Your task to perform on an android device: open the mobile data screen to see how much data has been used Image 0: 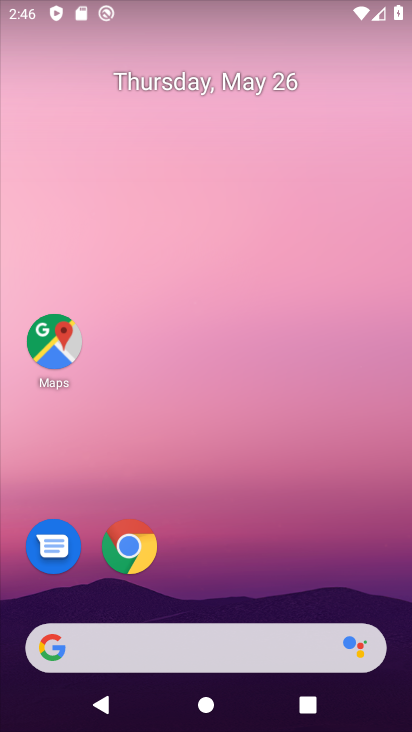
Step 0: drag from (396, 699) to (350, 257)
Your task to perform on an android device: open the mobile data screen to see how much data has been used Image 1: 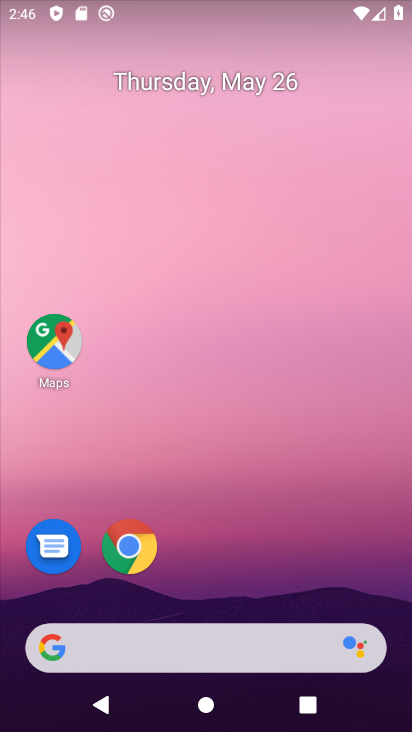
Step 1: drag from (397, 691) to (326, 207)
Your task to perform on an android device: open the mobile data screen to see how much data has been used Image 2: 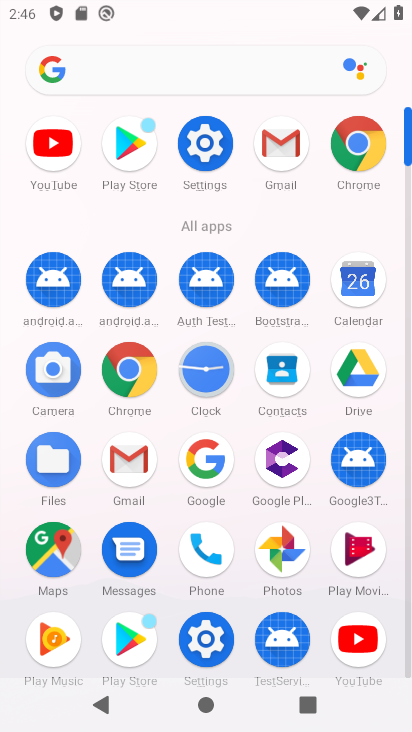
Step 2: click (205, 149)
Your task to perform on an android device: open the mobile data screen to see how much data has been used Image 3: 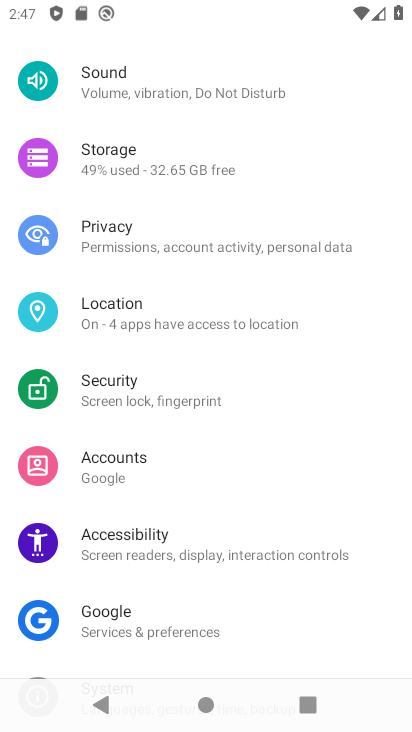
Step 3: drag from (307, 115) to (355, 567)
Your task to perform on an android device: open the mobile data screen to see how much data has been used Image 4: 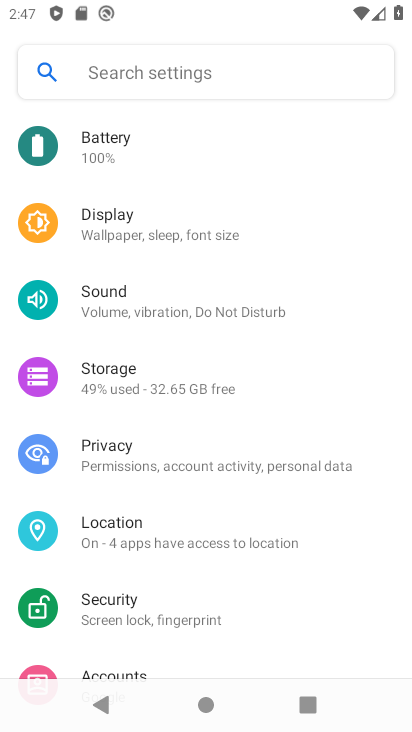
Step 4: drag from (335, 288) to (351, 528)
Your task to perform on an android device: open the mobile data screen to see how much data has been used Image 5: 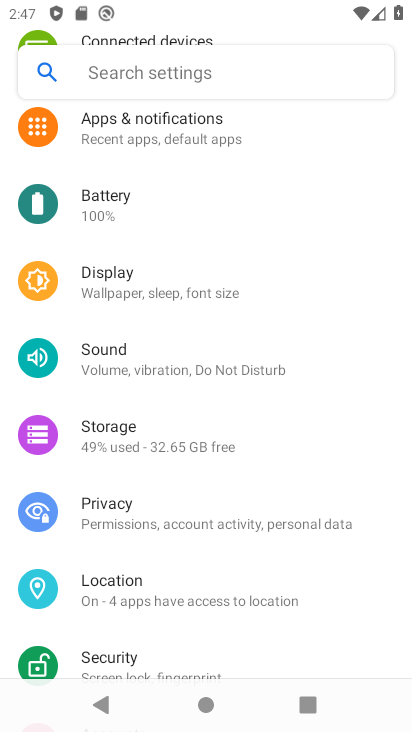
Step 5: drag from (324, 211) to (365, 591)
Your task to perform on an android device: open the mobile data screen to see how much data has been used Image 6: 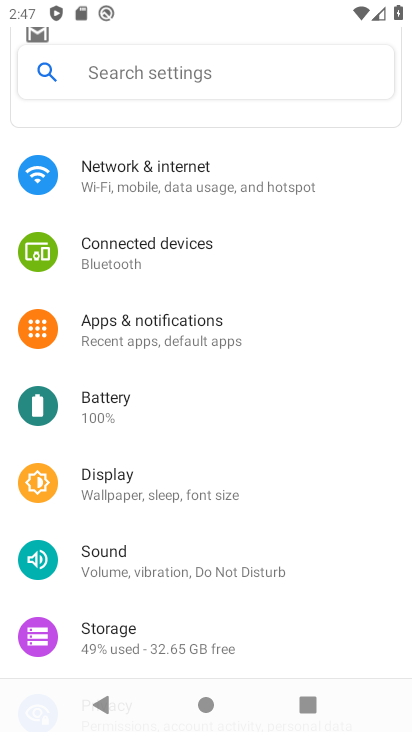
Step 6: drag from (365, 227) to (402, 600)
Your task to perform on an android device: open the mobile data screen to see how much data has been used Image 7: 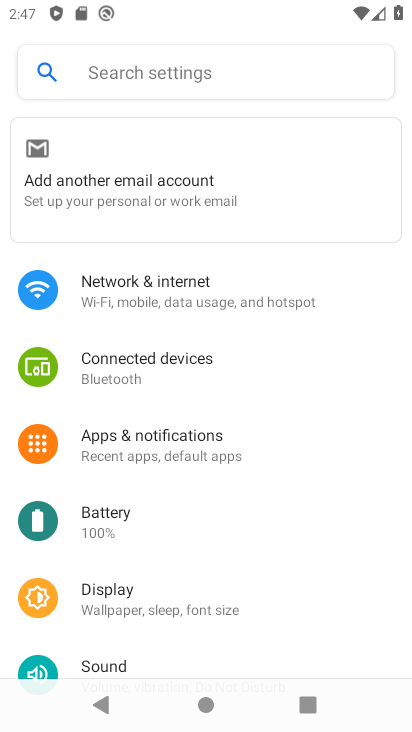
Step 7: click (129, 286)
Your task to perform on an android device: open the mobile data screen to see how much data has been used Image 8: 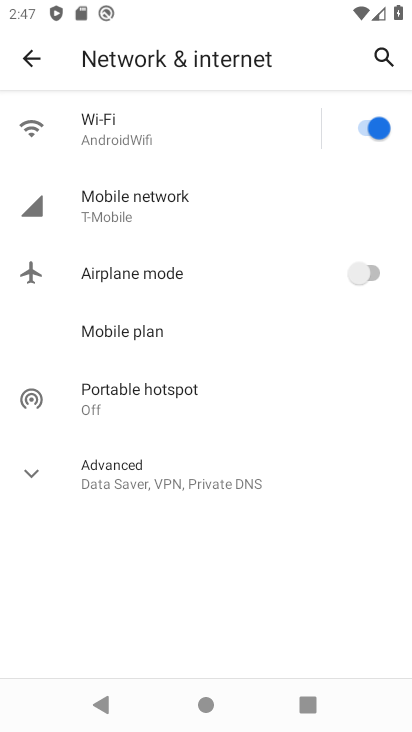
Step 8: click (124, 199)
Your task to perform on an android device: open the mobile data screen to see how much data has been used Image 9: 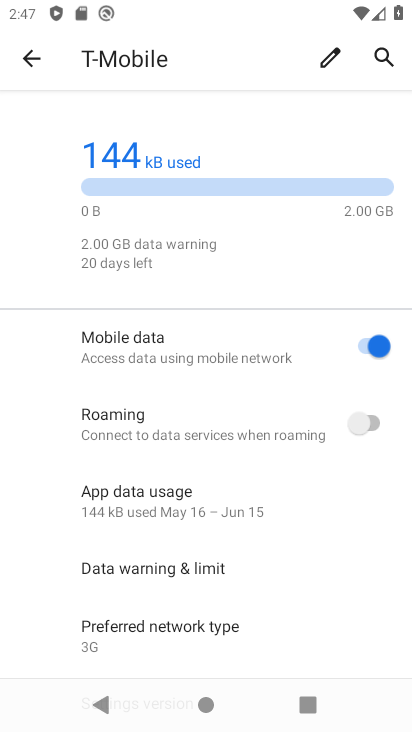
Step 9: task complete